Your task to perform on an android device: Clear the cart on bestbuy.com. Add "dell alienware" to the cart on bestbuy.com Image 0: 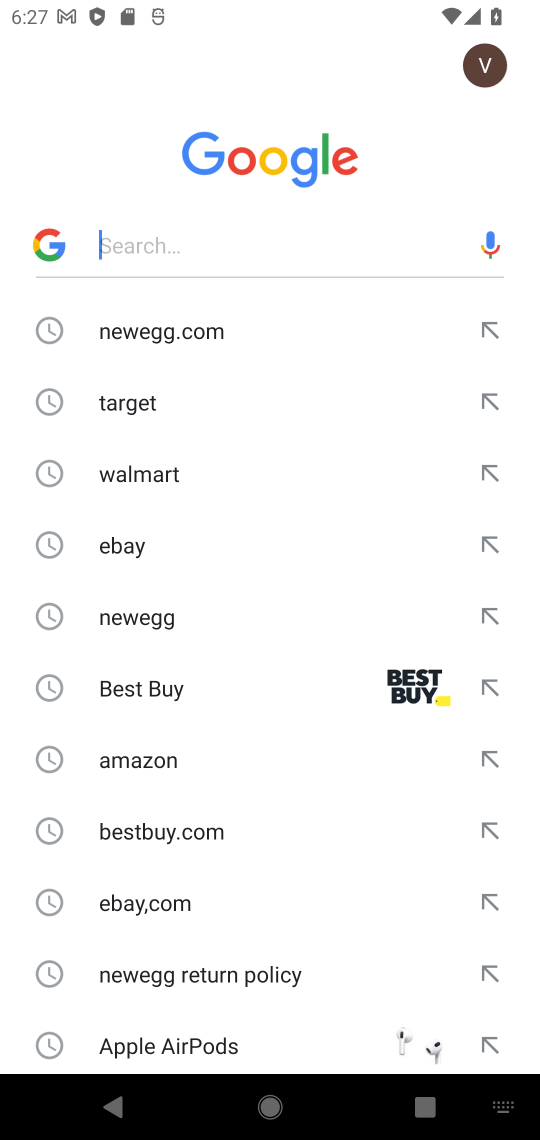
Step 0: click (122, 250)
Your task to perform on an android device: Clear the cart on bestbuy.com. Add "dell alienware" to the cart on bestbuy.com Image 1: 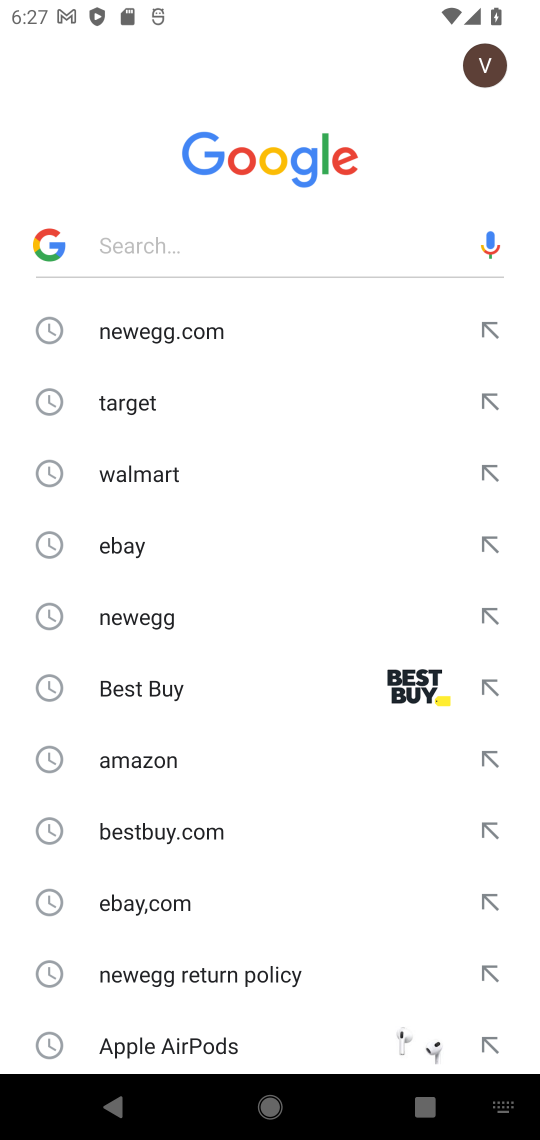
Step 1: type "bestbuy.com"
Your task to perform on an android device: Clear the cart on bestbuy.com. Add "dell alienware" to the cart on bestbuy.com Image 2: 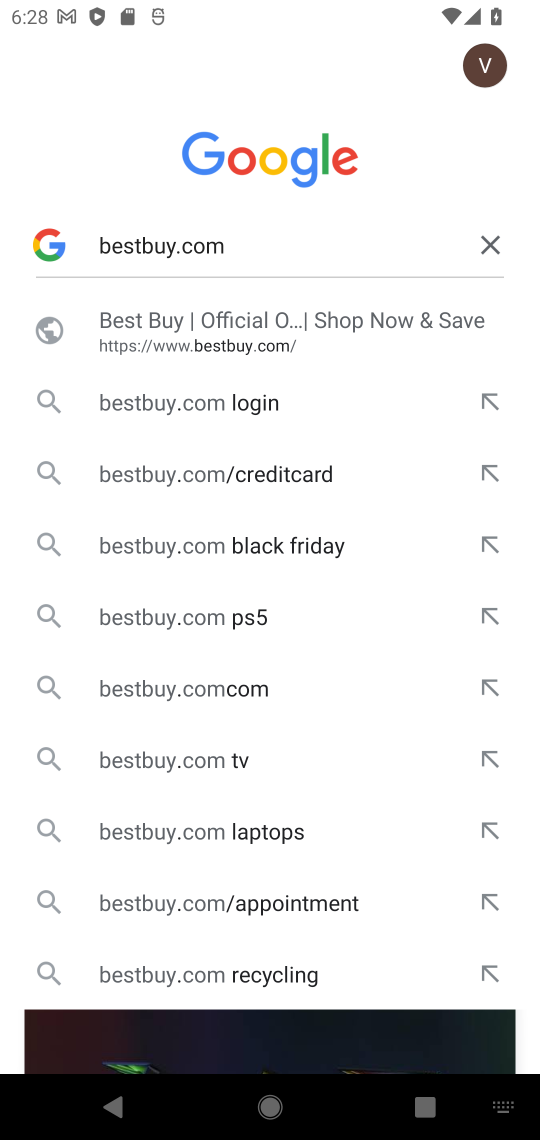
Step 2: click (168, 339)
Your task to perform on an android device: Clear the cart on bestbuy.com. Add "dell alienware" to the cart on bestbuy.com Image 3: 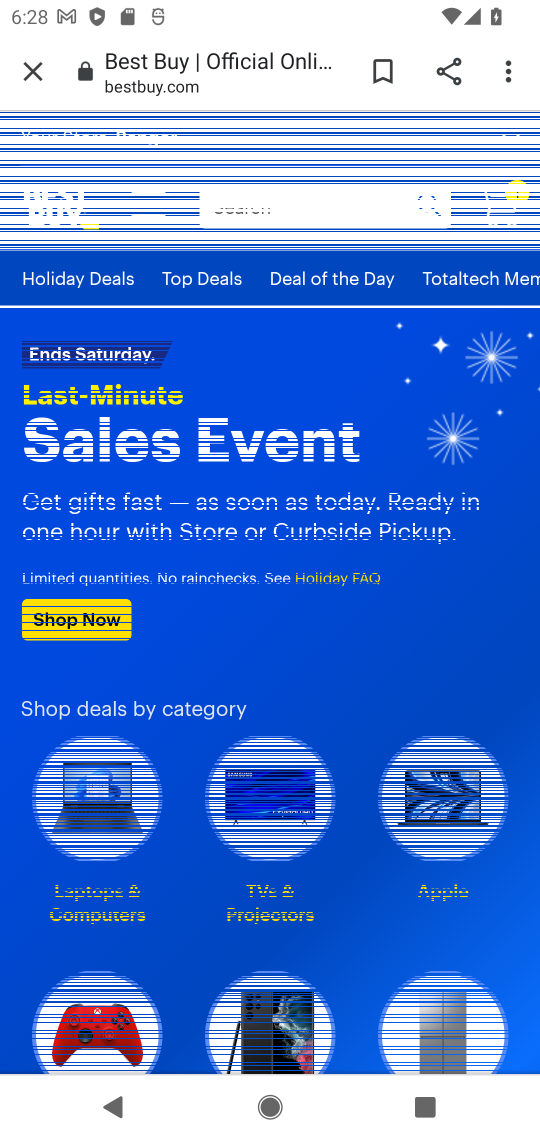
Step 3: click (508, 209)
Your task to perform on an android device: Clear the cart on bestbuy.com. Add "dell alienware" to the cart on bestbuy.com Image 4: 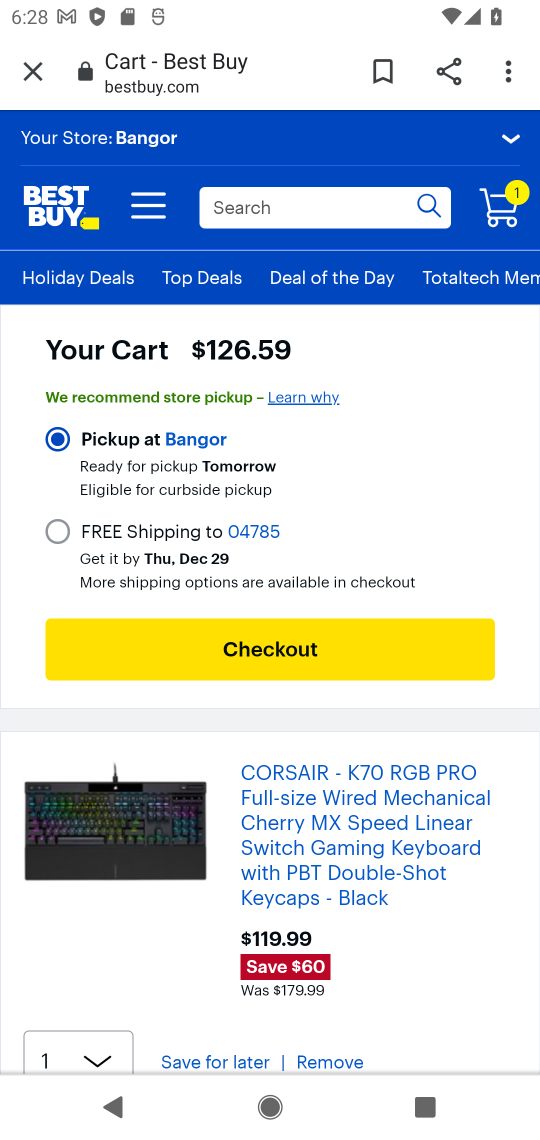
Step 4: click (319, 1065)
Your task to perform on an android device: Clear the cart on bestbuy.com. Add "dell alienware" to the cart on bestbuy.com Image 5: 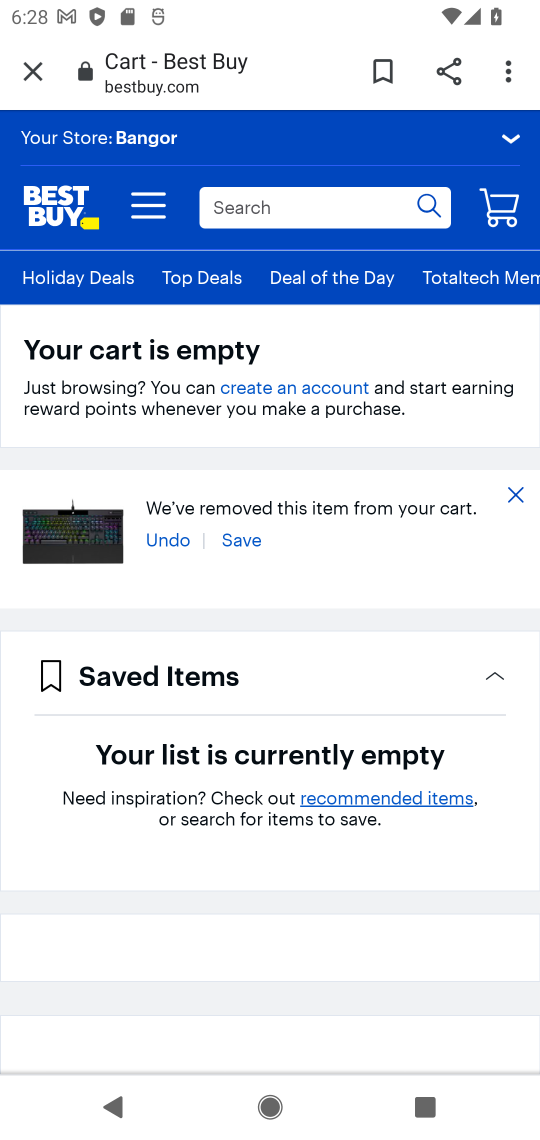
Step 5: click (256, 218)
Your task to perform on an android device: Clear the cart on bestbuy.com. Add "dell alienware" to the cart on bestbuy.com Image 6: 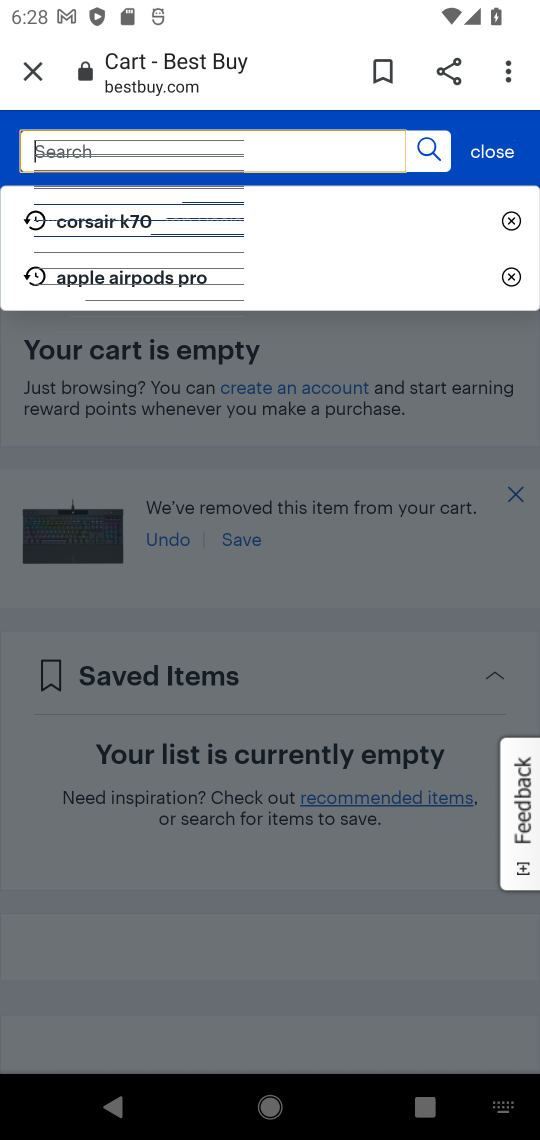
Step 6: type "dell alienware"
Your task to perform on an android device: Clear the cart on bestbuy.com. Add "dell alienware" to the cart on bestbuy.com Image 7: 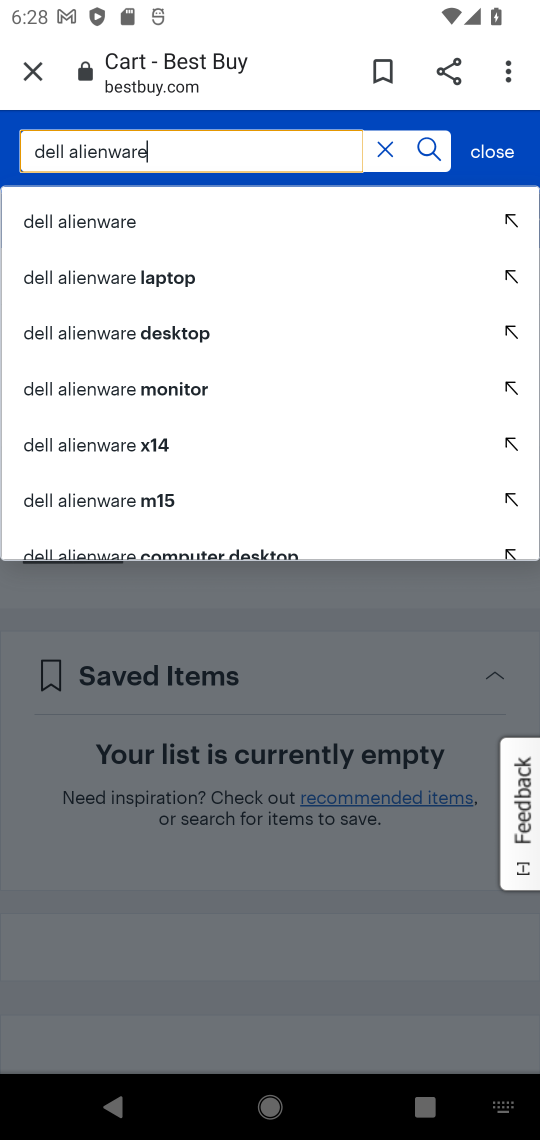
Step 7: click (61, 231)
Your task to perform on an android device: Clear the cart on bestbuy.com. Add "dell alienware" to the cart on bestbuy.com Image 8: 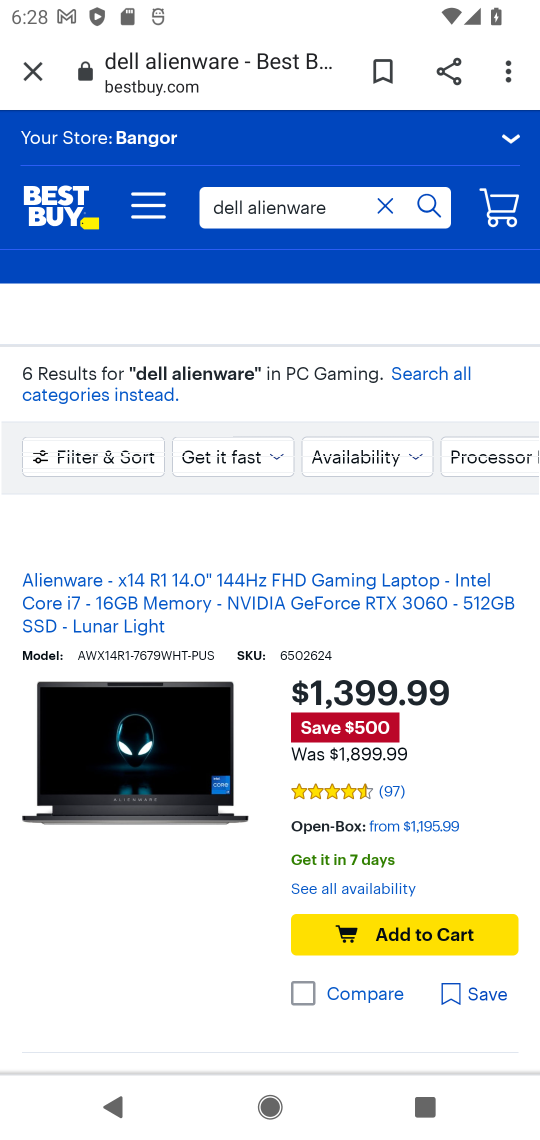
Step 8: click (373, 928)
Your task to perform on an android device: Clear the cart on bestbuy.com. Add "dell alienware" to the cart on bestbuy.com Image 9: 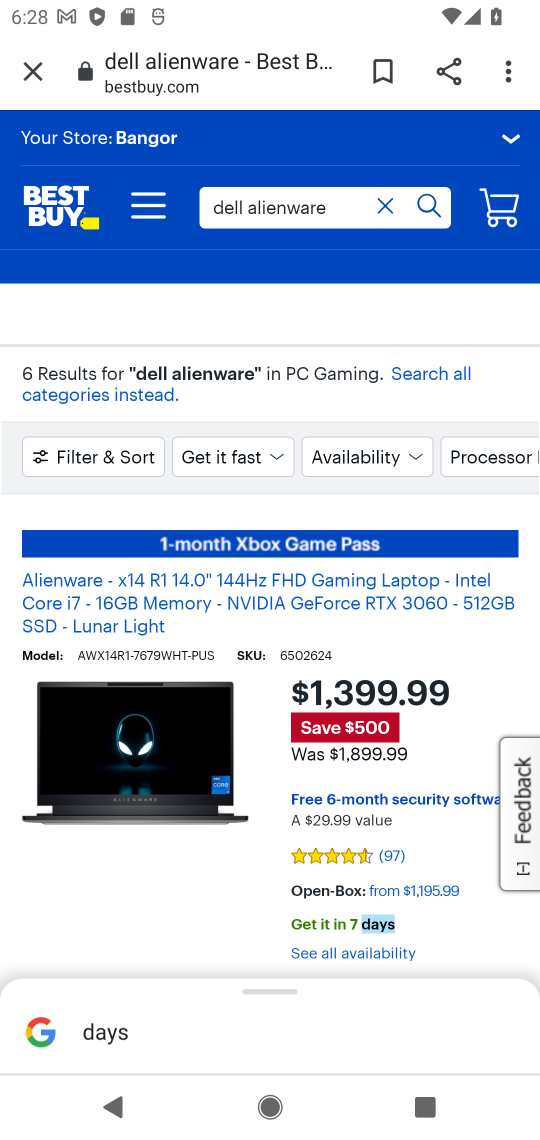
Step 9: drag from (289, 862) to (261, 487)
Your task to perform on an android device: Clear the cart on bestbuy.com. Add "dell alienware" to the cart on bestbuy.com Image 10: 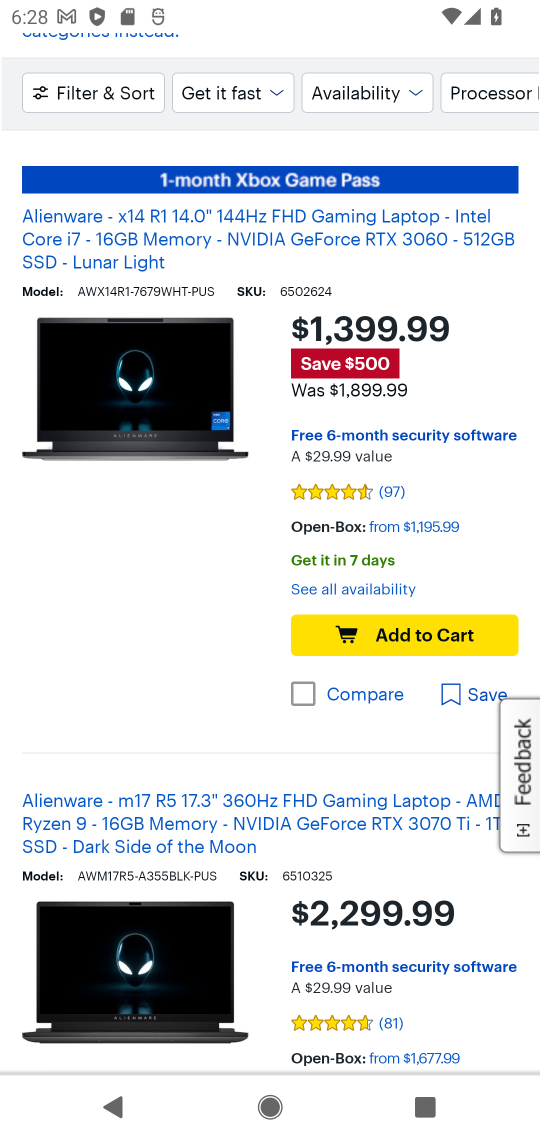
Step 10: click (416, 639)
Your task to perform on an android device: Clear the cart on bestbuy.com. Add "dell alienware" to the cart on bestbuy.com Image 11: 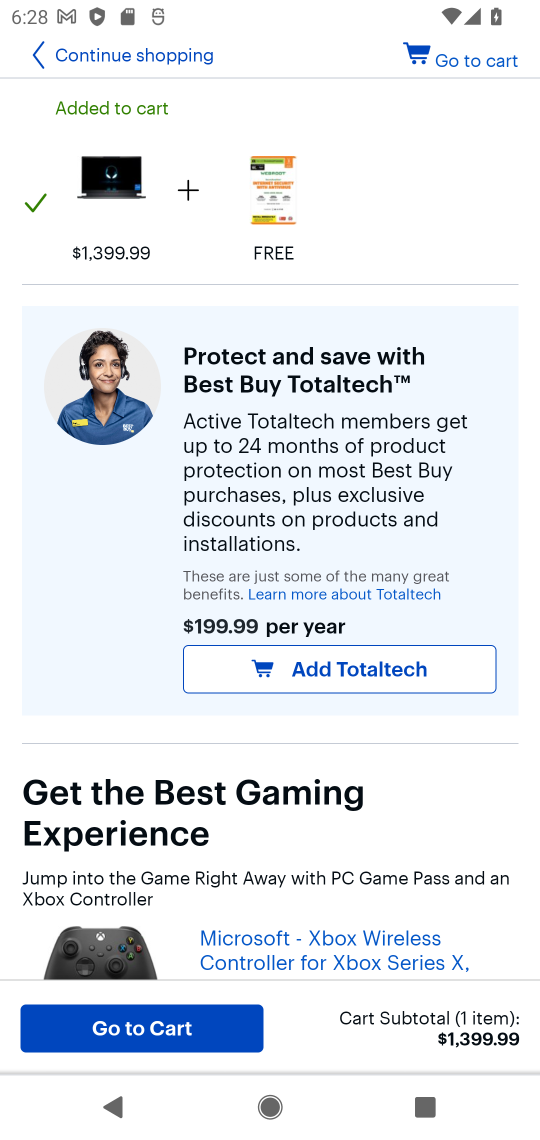
Step 11: task complete